Your task to perform on an android device: star an email in the gmail app Image 0: 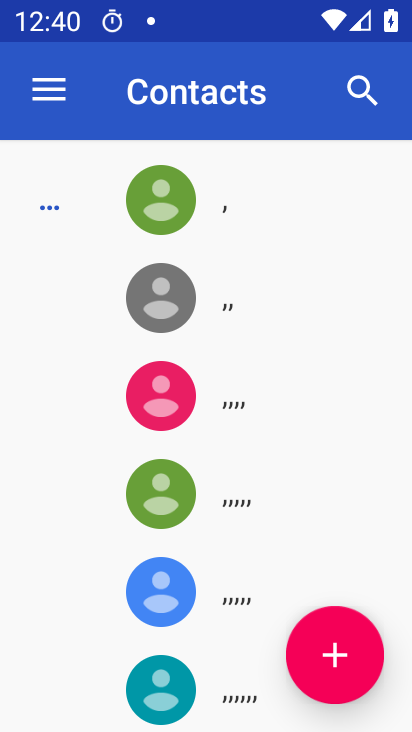
Step 0: press home button
Your task to perform on an android device: star an email in the gmail app Image 1: 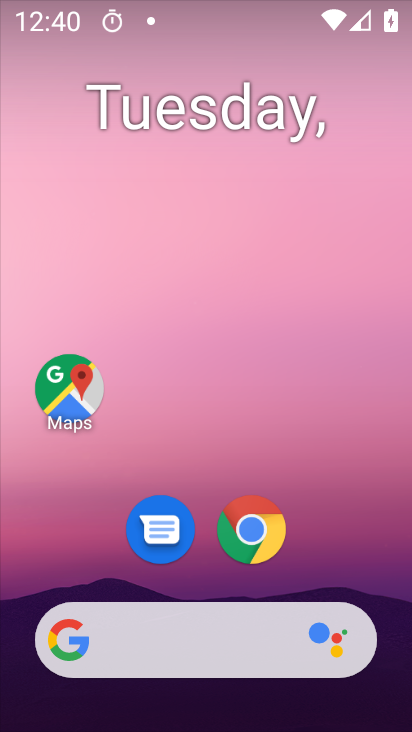
Step 1: drag from (310, 510) to (219, 0)
Your task to perform on an android device: star an email in the gmail app Image 2: 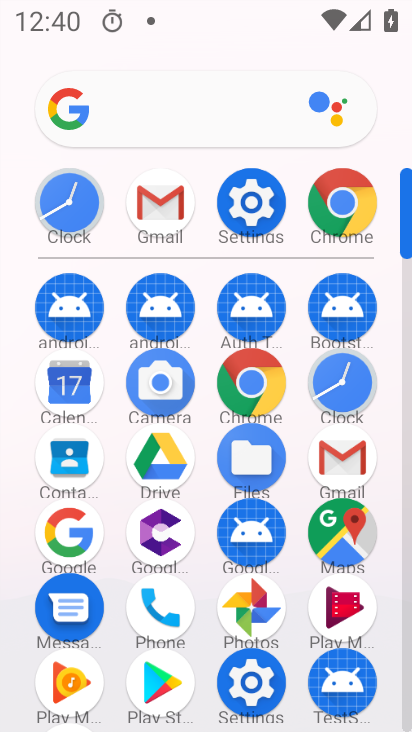
Step 2: click (153, 223)
Your task to perform on an android device: star an email in the gmail app Image 3: 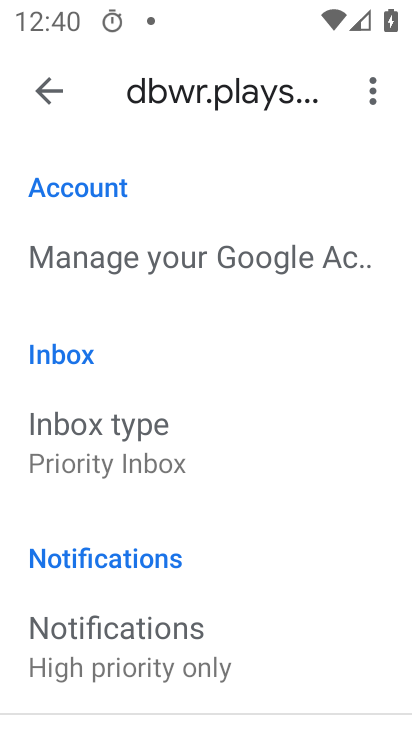
Step 3: click (36, 101)
Your task to perform on an android device: star an email in the gmail app Image 4: 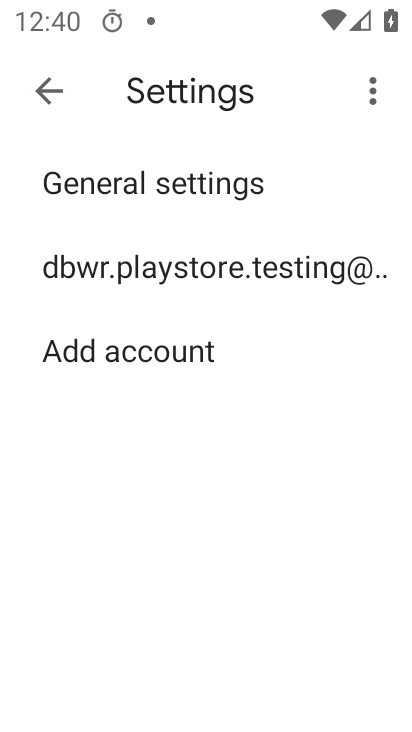
Step 4: click (38, 106)
Your task to perform on an android device: star an email in the gmail app Image 5: 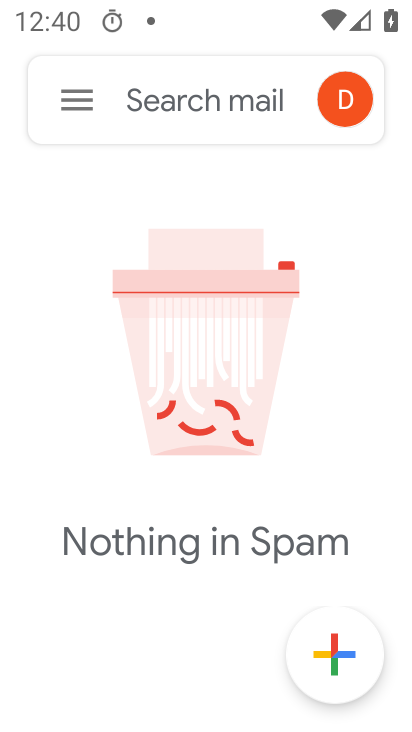
Step 5: click (63, 103)
Your task to perform on an android device: star an email in the gmail app Image 6: 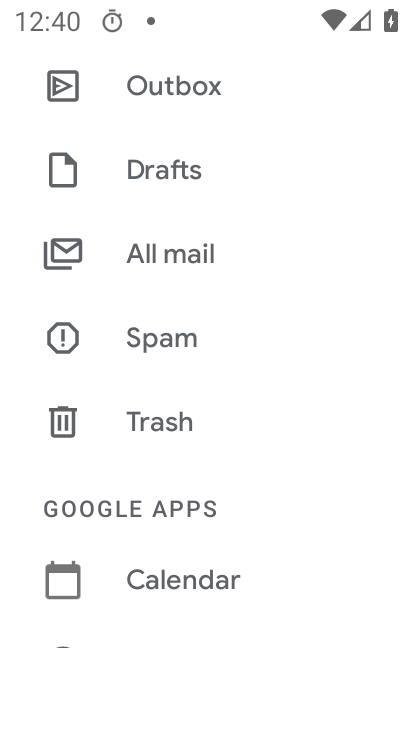
Step 6: drag from (63, 103) to (154, 576)
Your task to perform on an android device: star an email in the gmail app Image 7: 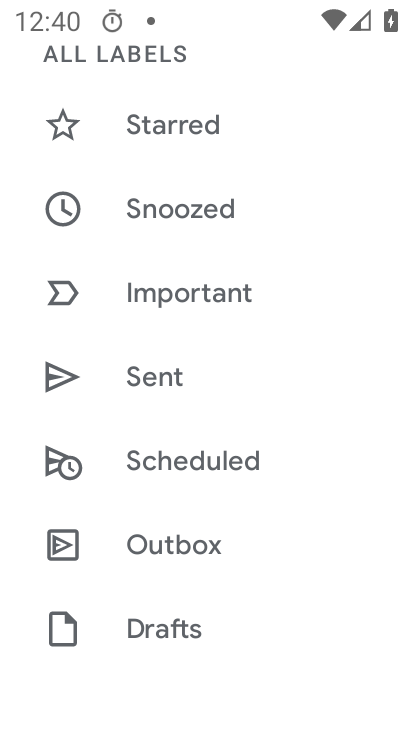
Step 7: drag from (167, 181) to (230, 604)
Your task to perform on an android device: star an email in the gmail app Image 8: 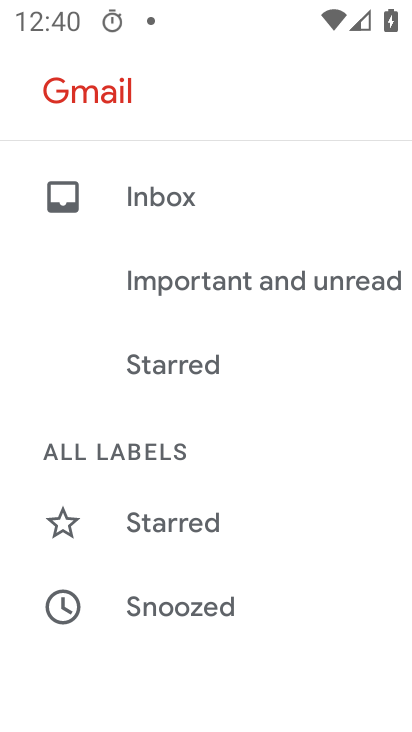
Step 8: click (156, 192)
Your task to perform on an android device: star an email in the gmail app Image 9: 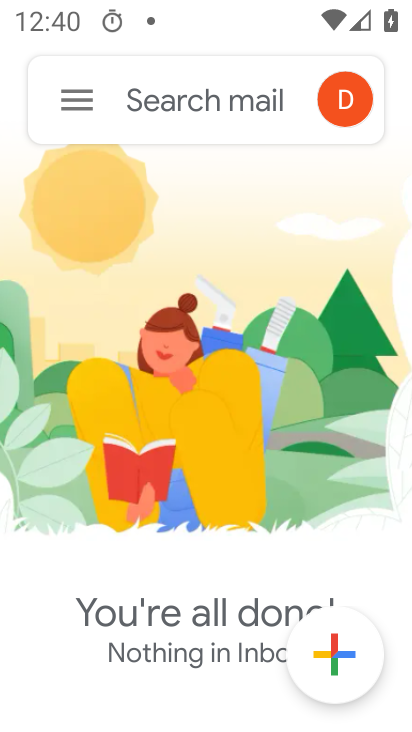
Step 9: task complete